Your task to perform on an android device: Open network settings Image 0: 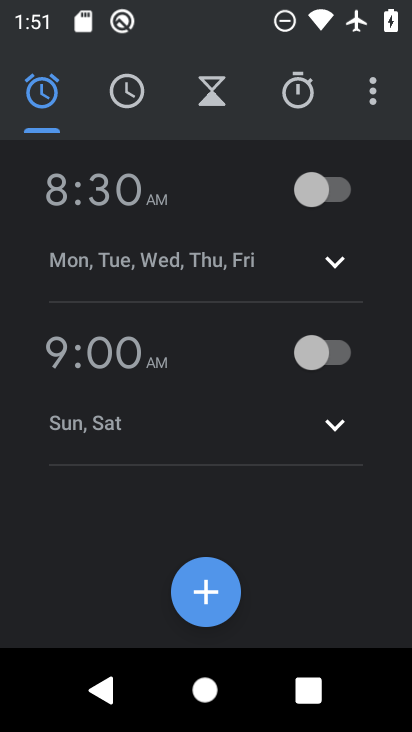
Step 0: press home button
Your task to perform on an android device: Open network settings Image 1: 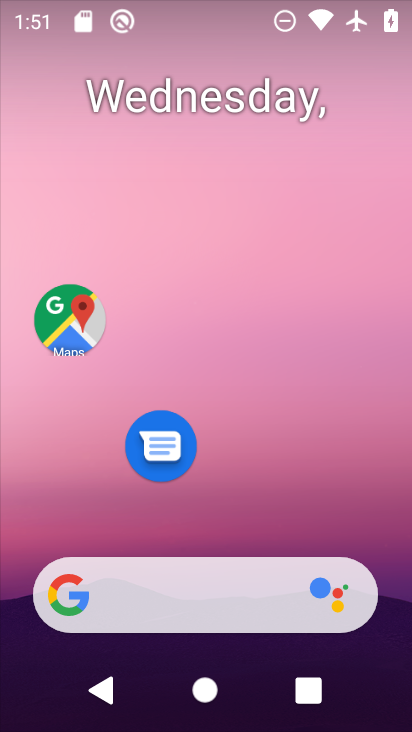
Step 1: drag from (295, 530) to (290, 113)
Your task to perform on an android device: Open network settings Image 2: 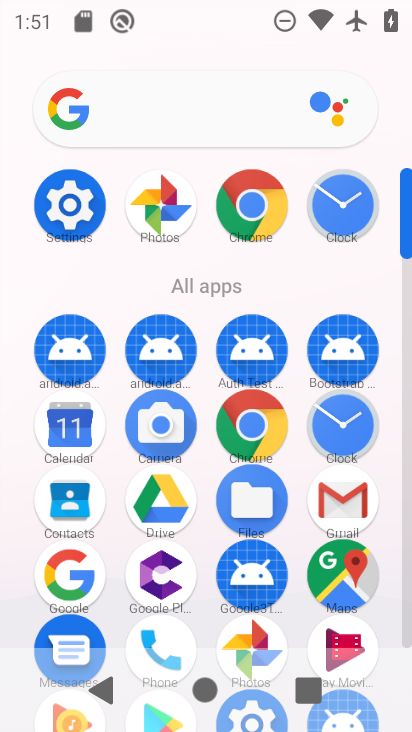
Step 2: click (79, 204)
Your task to perform on an android device: Open network settings Image 3: 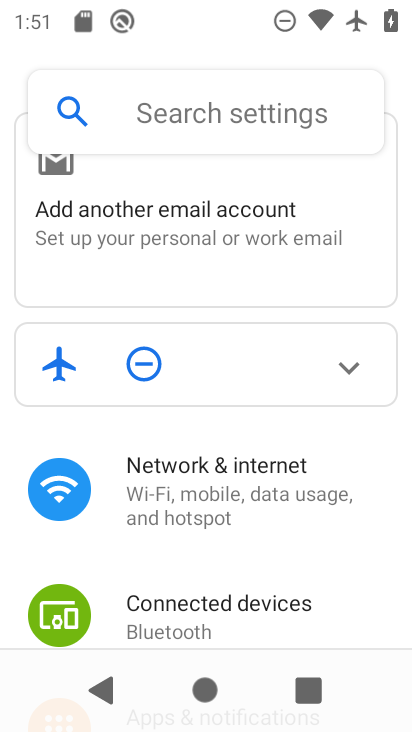
Step 3: click (160, 433)
Your task to perform on an android device: Open network settings Image 4: 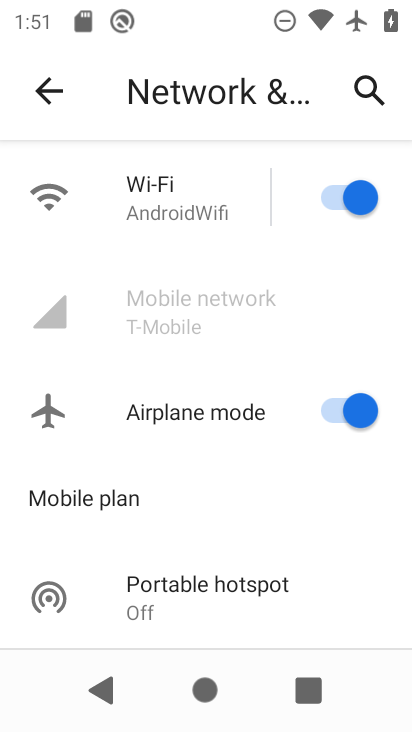
Step 4: task complete